Your task to perform on an android device: Search for macbook air on amazon, select the first entry, and add it to the cart. Image 0: 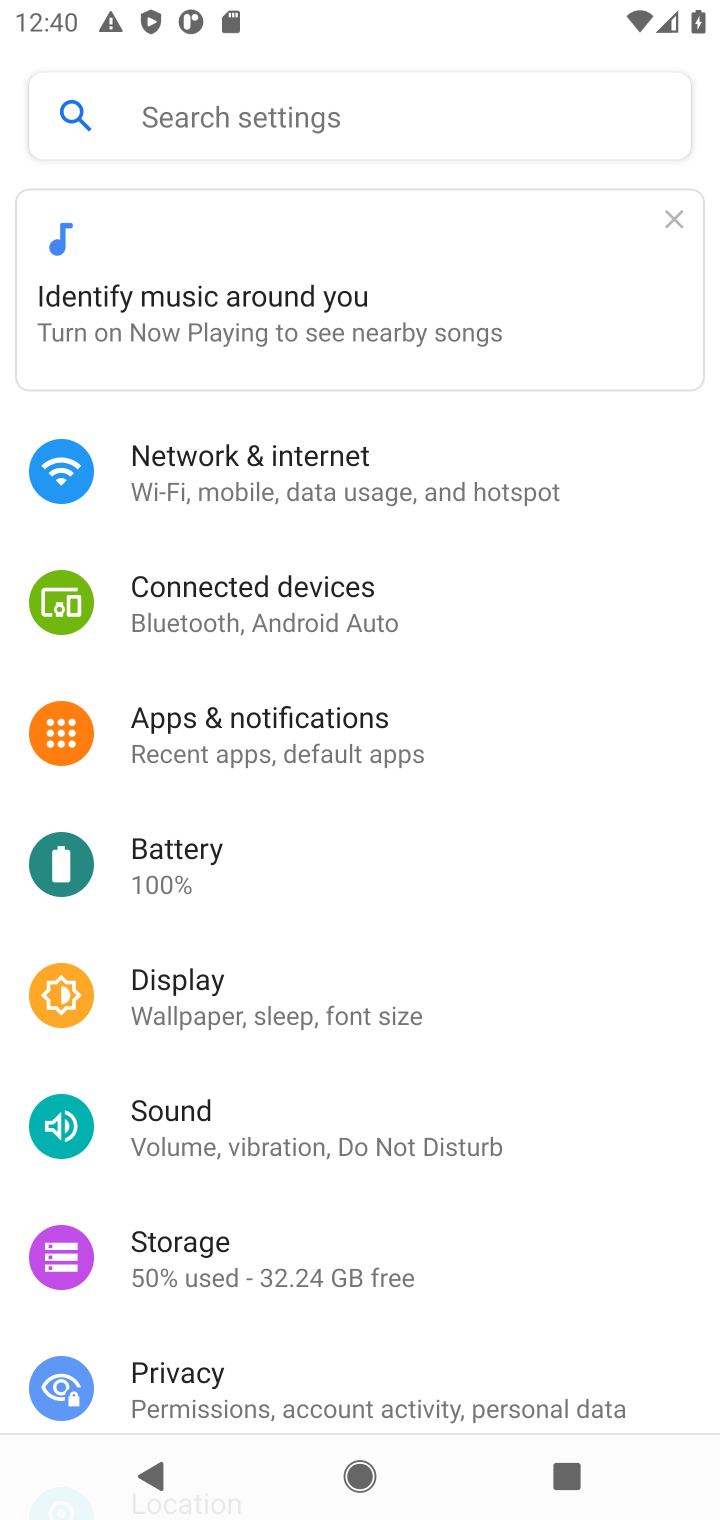
Step 0: task complete